Your task to perform on an android device: Show the shopping cart on ebay.com. Search for usb-a to usb-b on ebay.com, select the first entry, and add it to the cart. Image 0: 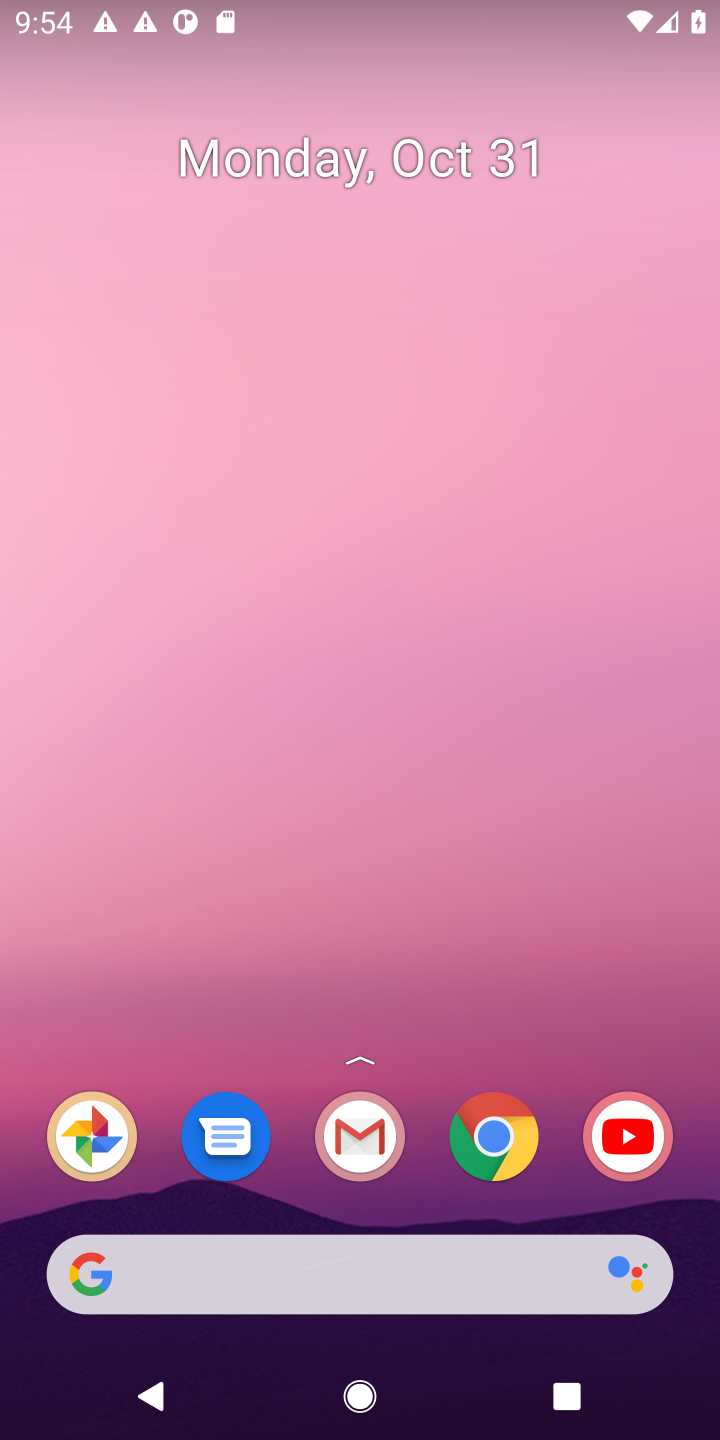
Step 0: press home button
Your task to perform on an android device: Show the shopping cart on ebay.com. Search for usb-a to usb-b on ebay.com, select the first entry, and add it to the cart. Image 1: 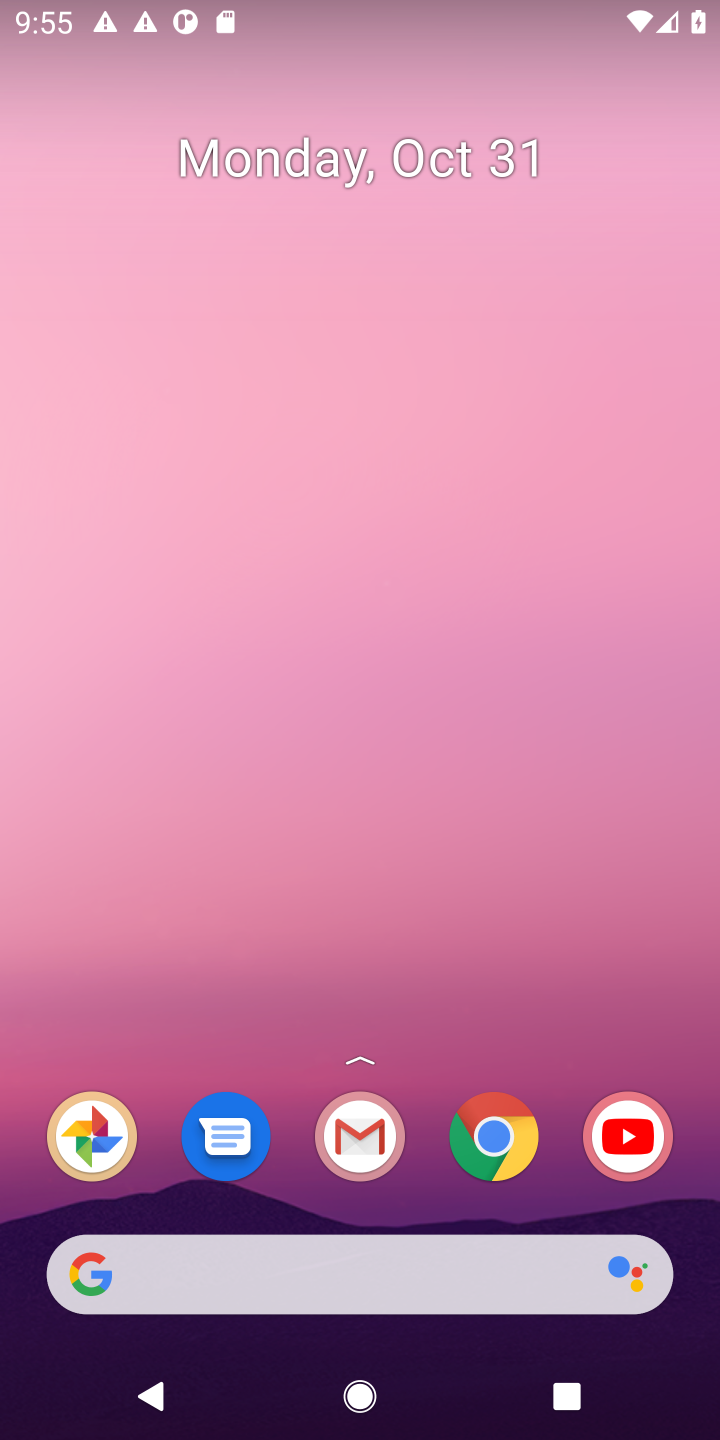
Step 1: click (142, 1270)
Your task to perform on an android device: Show the shopping cart on ebay.com. Search for usb-a to usb-b on ebay.com, select the first entry, and add it to the cart. Image 2: 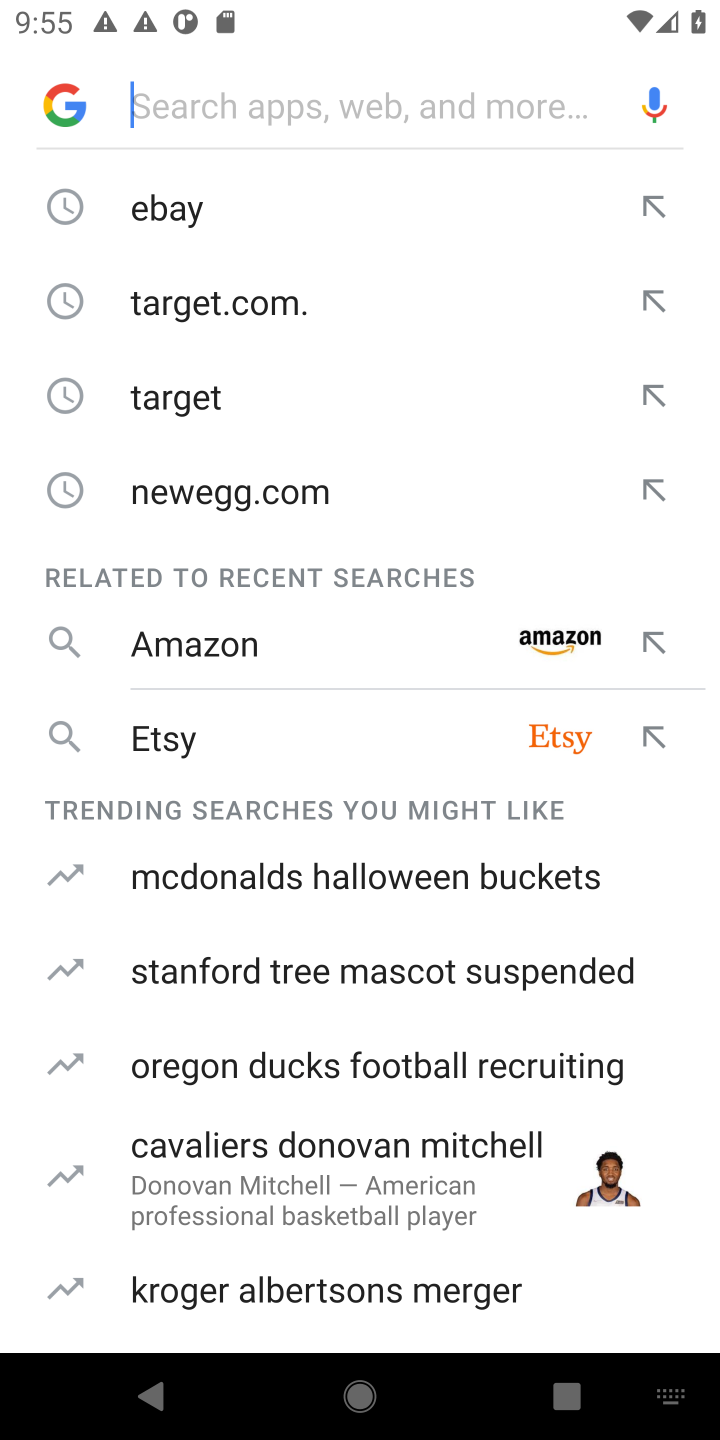
Step 2: press enter
Your task to perform on an android device: Show the shopping cart on ebay.com. Search for usb-a to usb-b on ebay.com, select the first entry, and add it to the cart. Image 3: 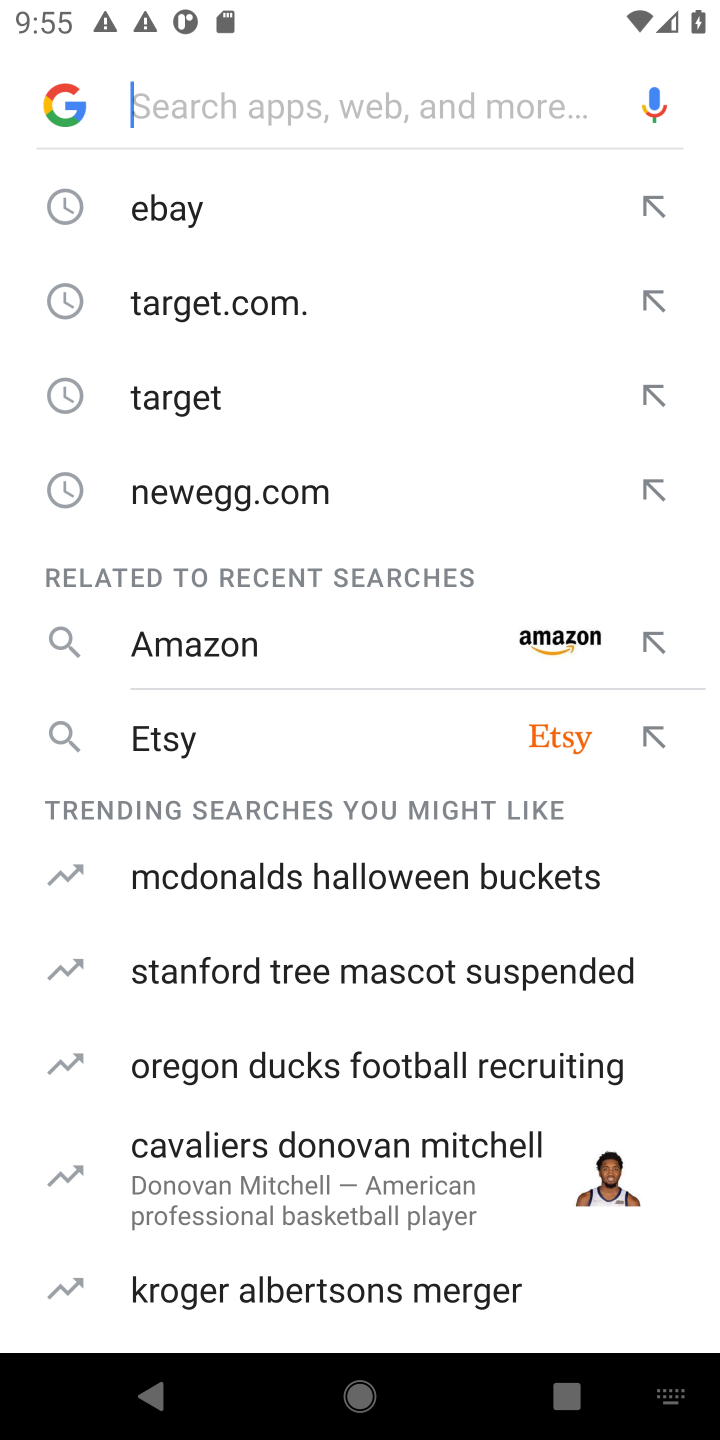
Step 3: type "ebay.com"
Your task to perform on an android device: Show the shopping cart on ebay.com. Search for usb-a to usb-b on ebay.com, select the first entry, and add it to the cart. Image 4: 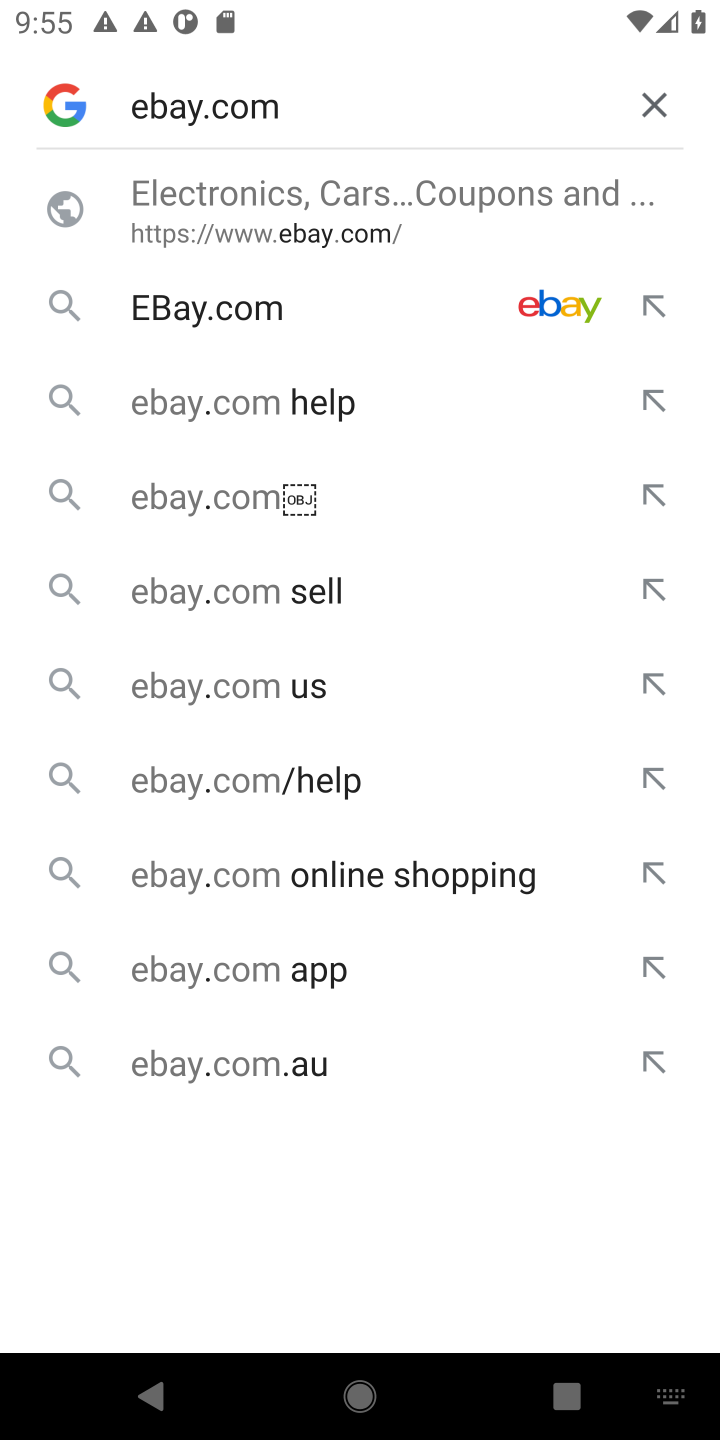
Step 4: press enter
Your task to perform on an android device: Show the shopping cart on ebay.com. Search for usb-a to usb-b on ebay.com, select the first entry, and add it to the cart. Image 5: 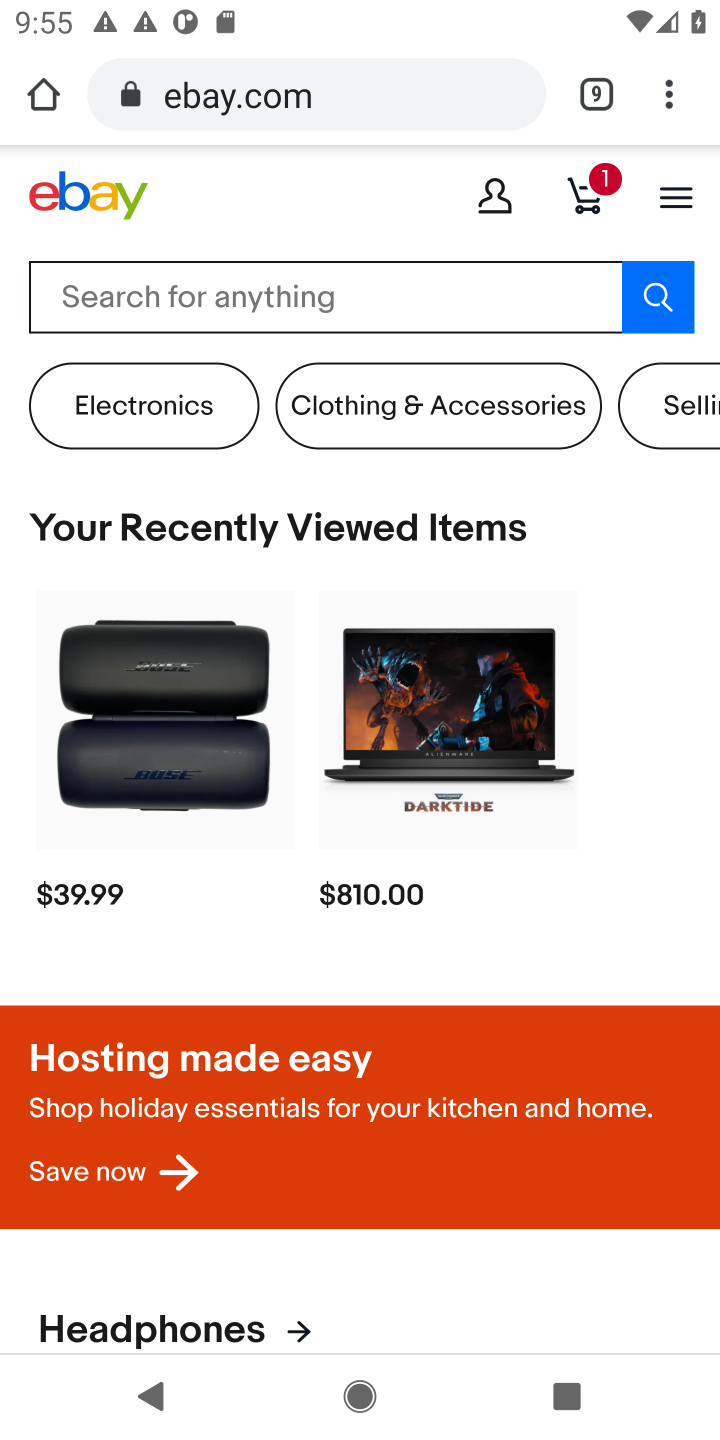
Step 5: click (596, 180)
Your task to perform on an android device: Show the shopping cart on ebay.com. Search for usb-a to usb-b on ebay.com, select the first entry, and add it to the cart. Image 6: 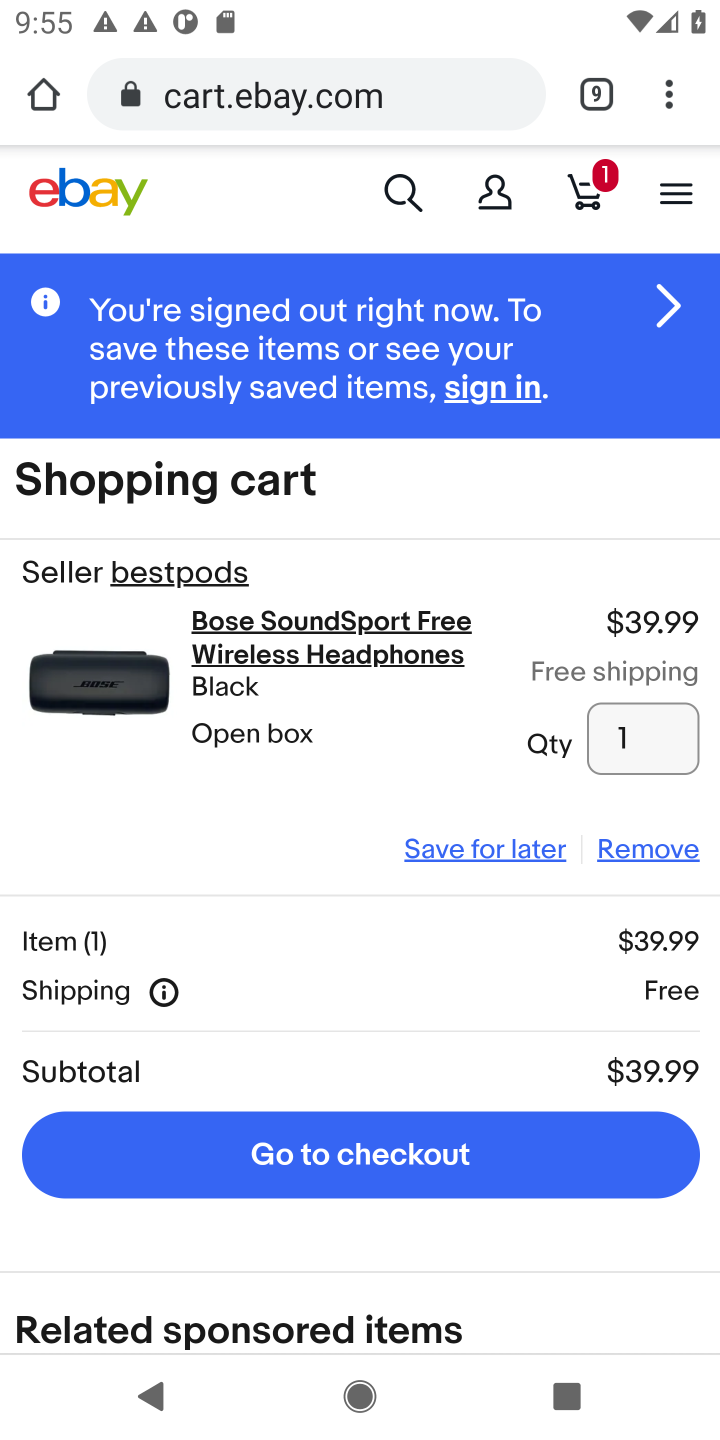
Step 6: click (409, 201)
Your task to perform on an android device: Show the shopping cart on ebay.com. Search for usb-a to usb-b on ebay.com, select the first entry, and add it to the cart. Image 7: 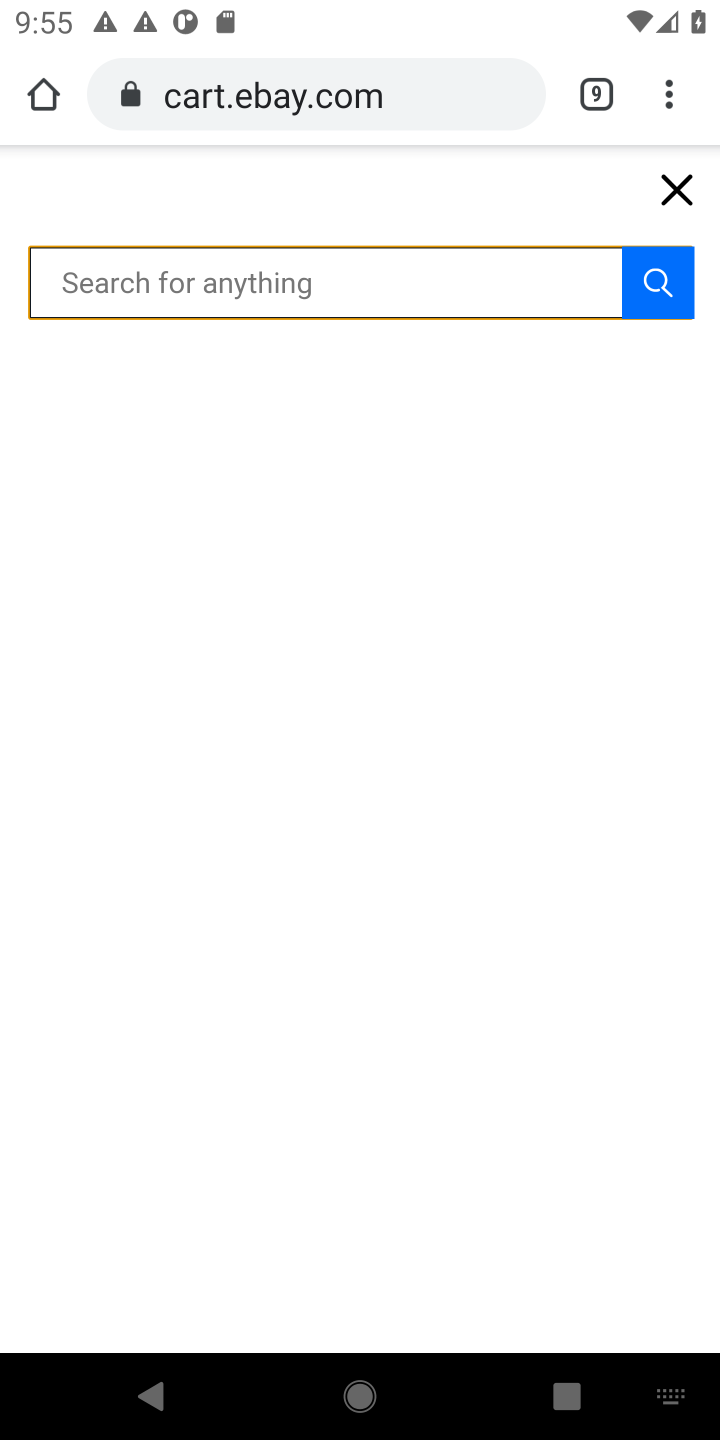
Step 7: click (194, 298)
Your task to perform on an android device: Show the shopping cart on ebay.com. Search for usb-a to usb-b on ebay.com, select the first entry, and add it to the cart. Image 8: 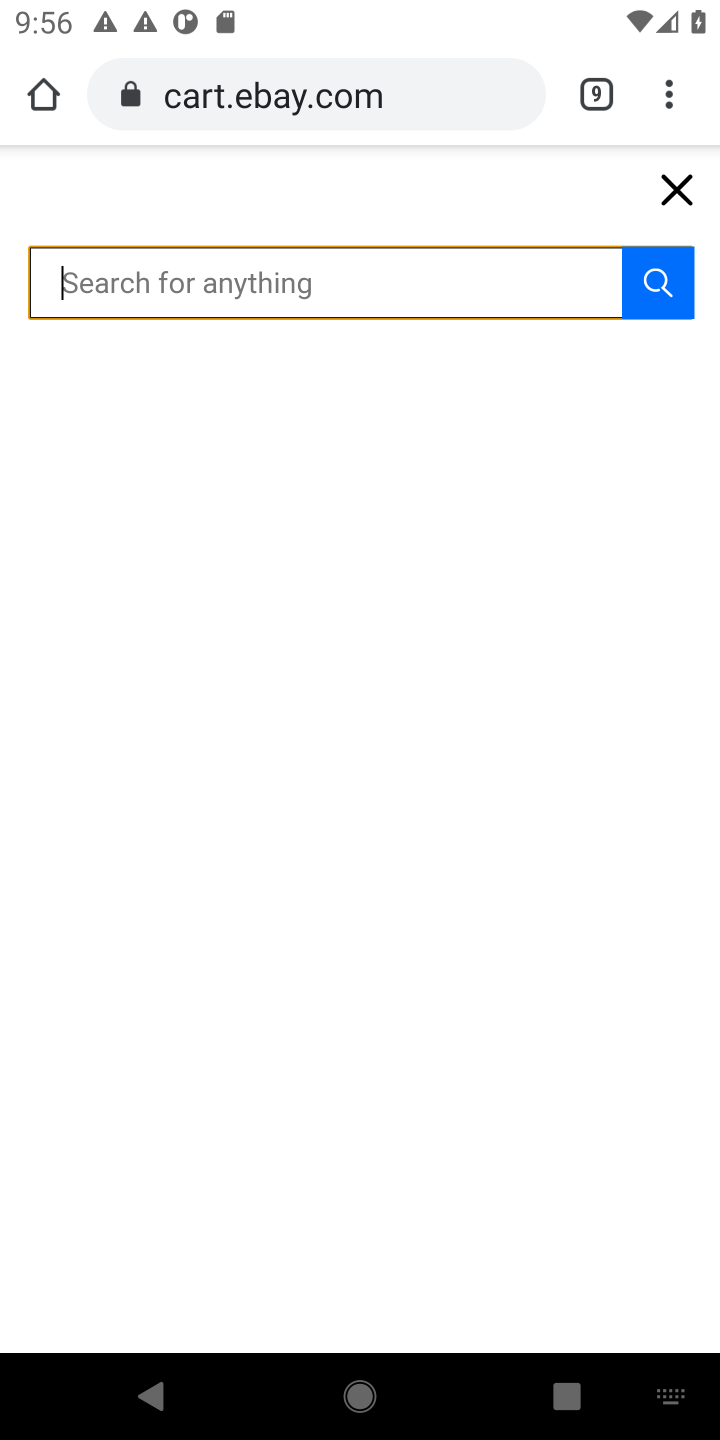
Step 8: type "usb-a to usb-b"
Your task to perform on an android device: Show the shopping cart on ebay.com. Search for usb-a to usb-b on ebay.com, select the first entry, and add it to the cart. Image 9: 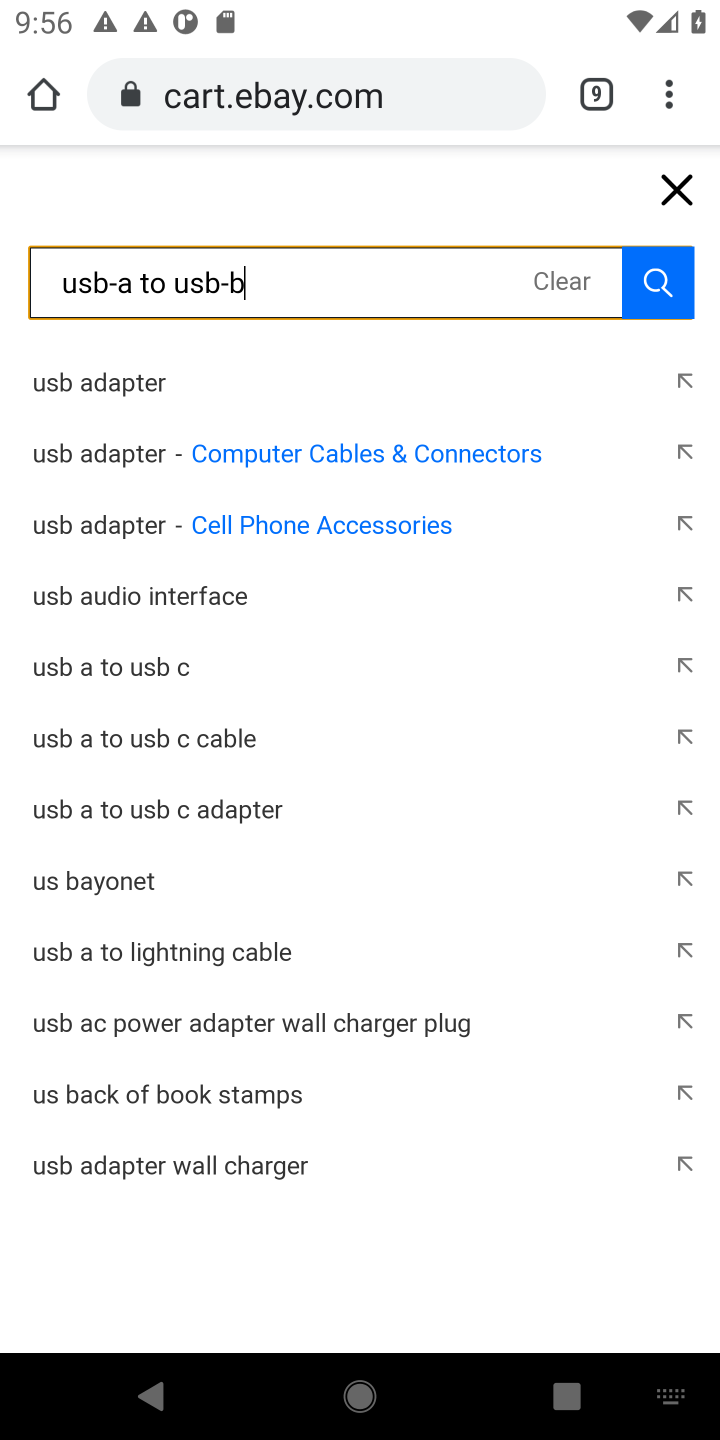
Step 9: press enter
Your task to perform on an android device: Show the shopping cart on ebay.com. Search for usb-a to usb-b on ebay.com, select the first entry, and add it to the cart. Image 10: 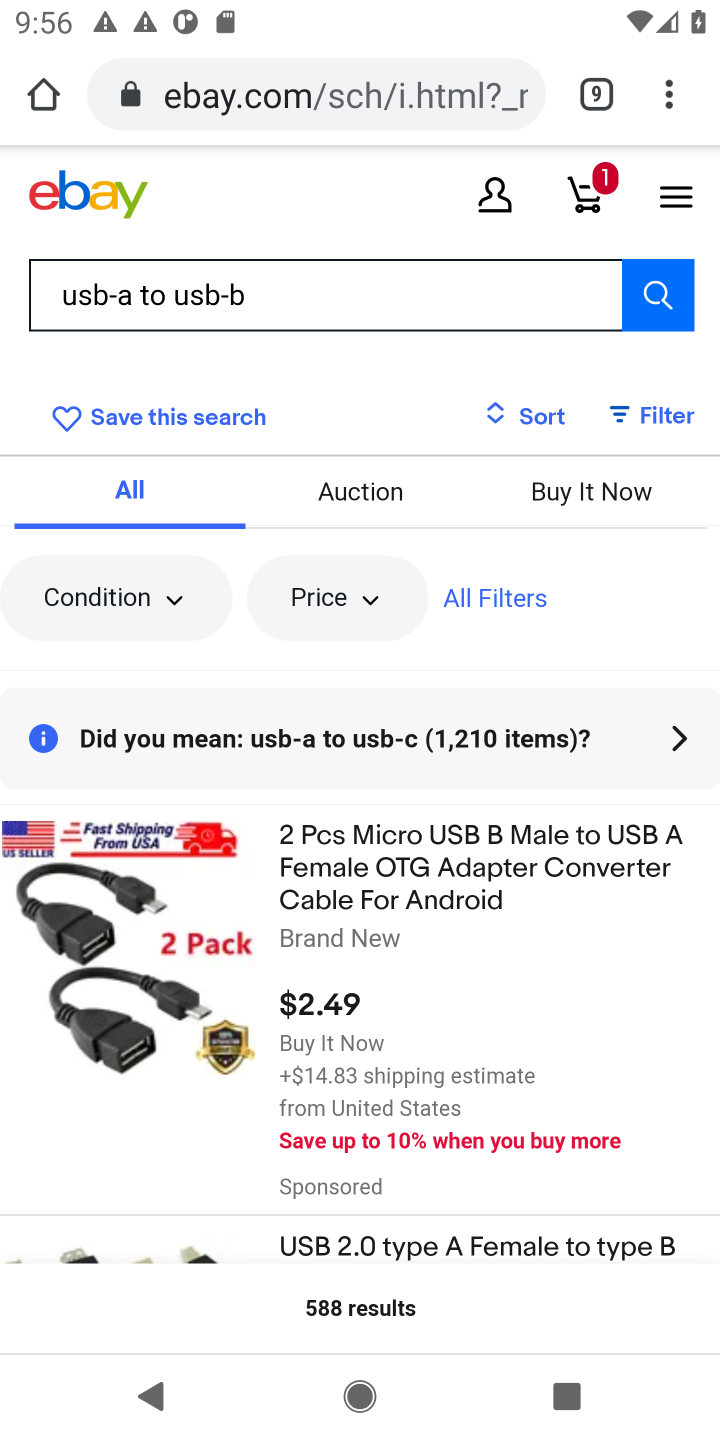
Step 10: click (432, 859)
Your task to perform on an android device: Show the shopping cart on ebay.com. Search for usb-a to usb-b on ebay.com, select the first entry, and add it to the cart. Image 11: 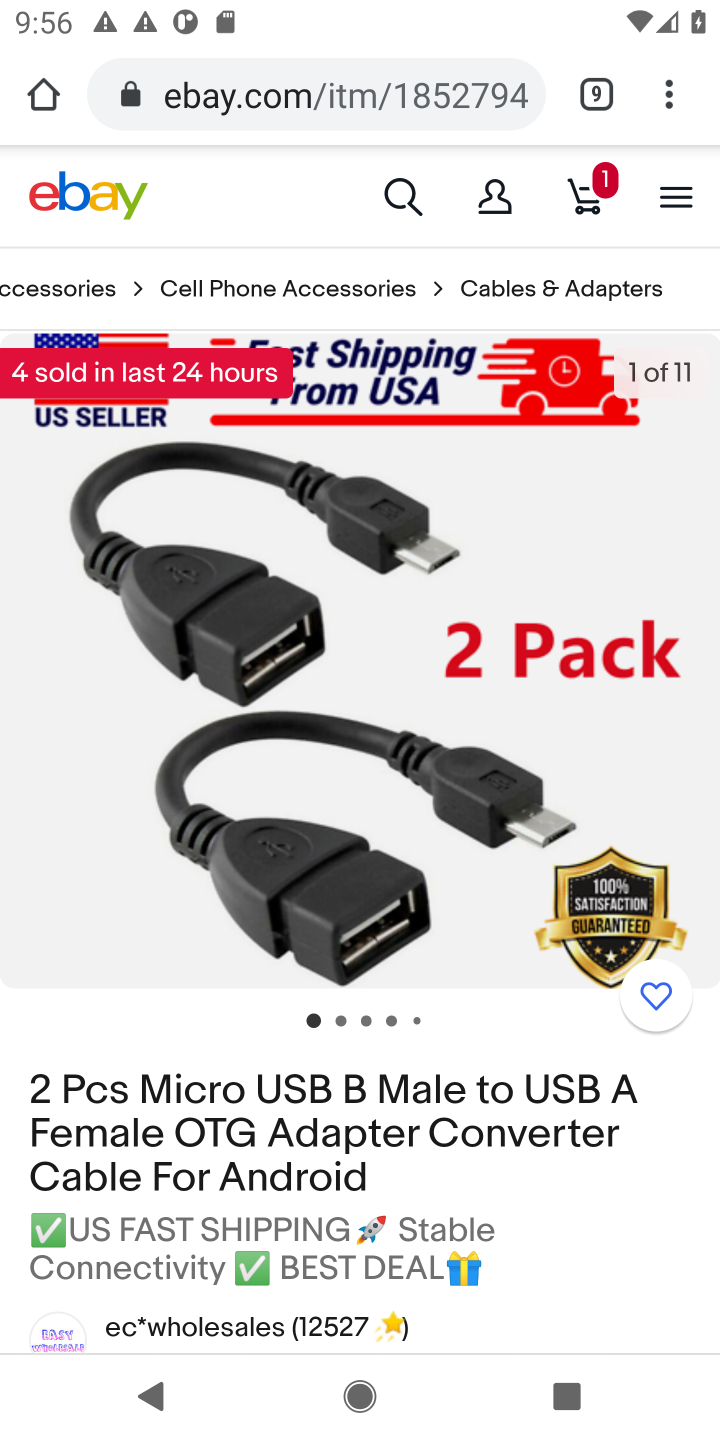
Step 11: drag from (382, 1031) to (381, 591)
Your task to perform on an android device: Show the shopping cart on ebay.com. Search for usb-a to usb-b on ebay.com, select the first entry, and add it to the cart. Image 12: 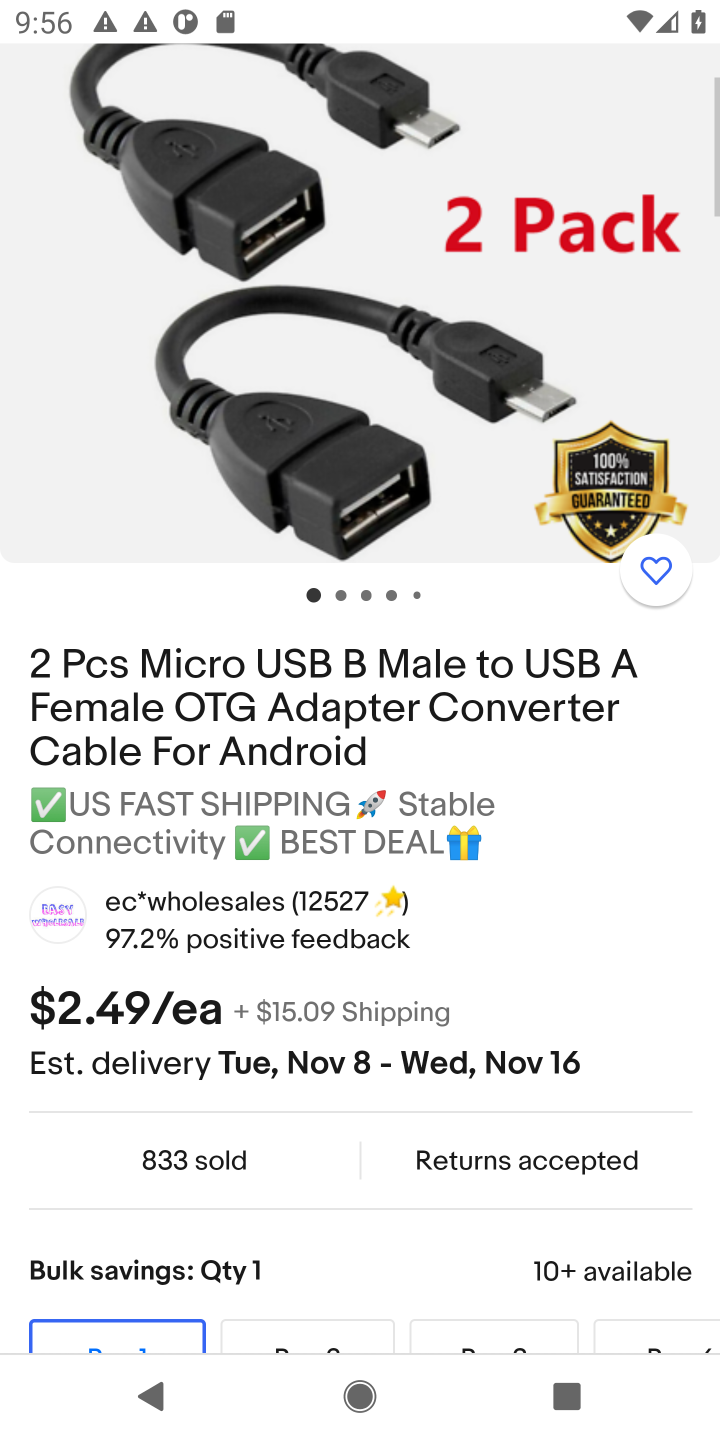
Step 12: drag from (372, 1000) to (385, 547)
Your task to perform on an android device: Show the shopping cart on ebay.com. Search for usb-a to usb-b on ebay.com, select the first entry, and add it to the cart. Image 13: 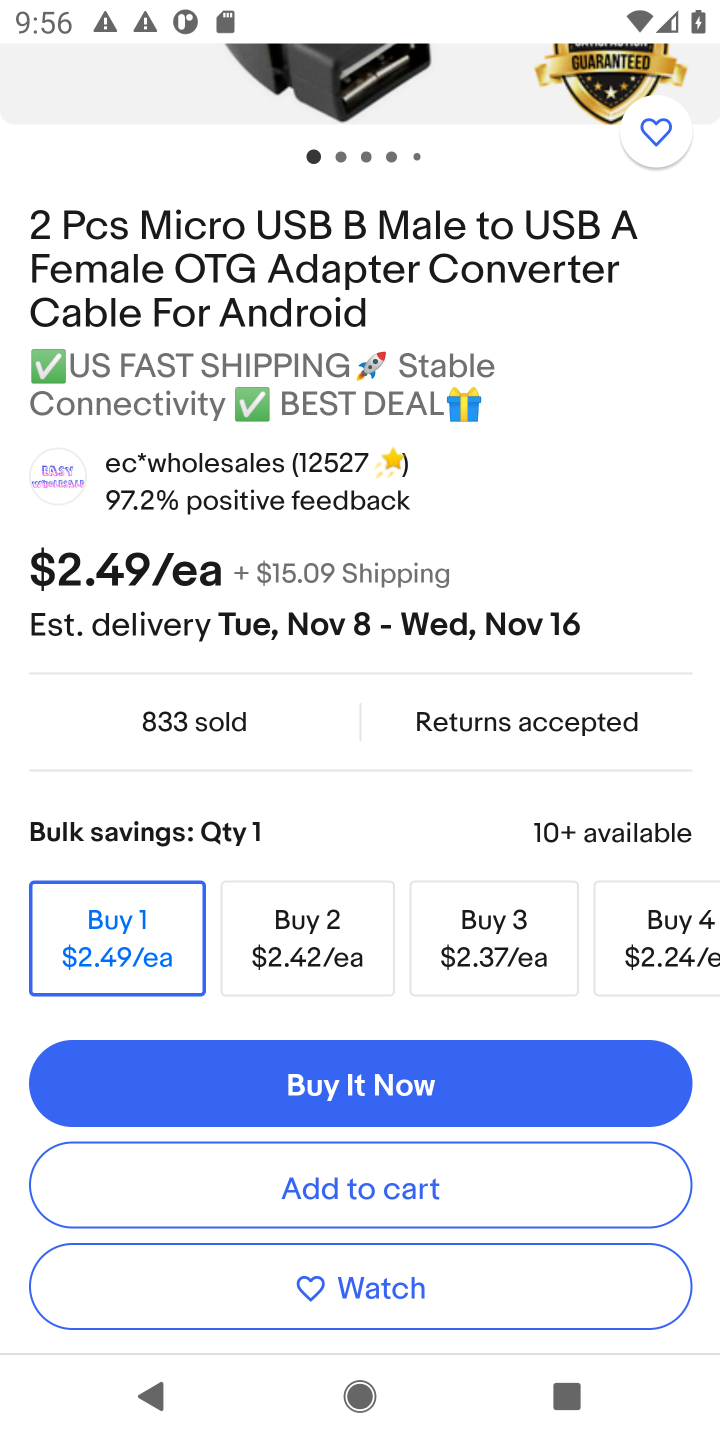
Step 13: drag from (394, 1056) to (400, 464)
Your task to perform on an android device: Show the shopping cart on ebay.com. Search for usb-a to usb-b on ebay.com, select the first entry, and add it to the cart. Image 14: 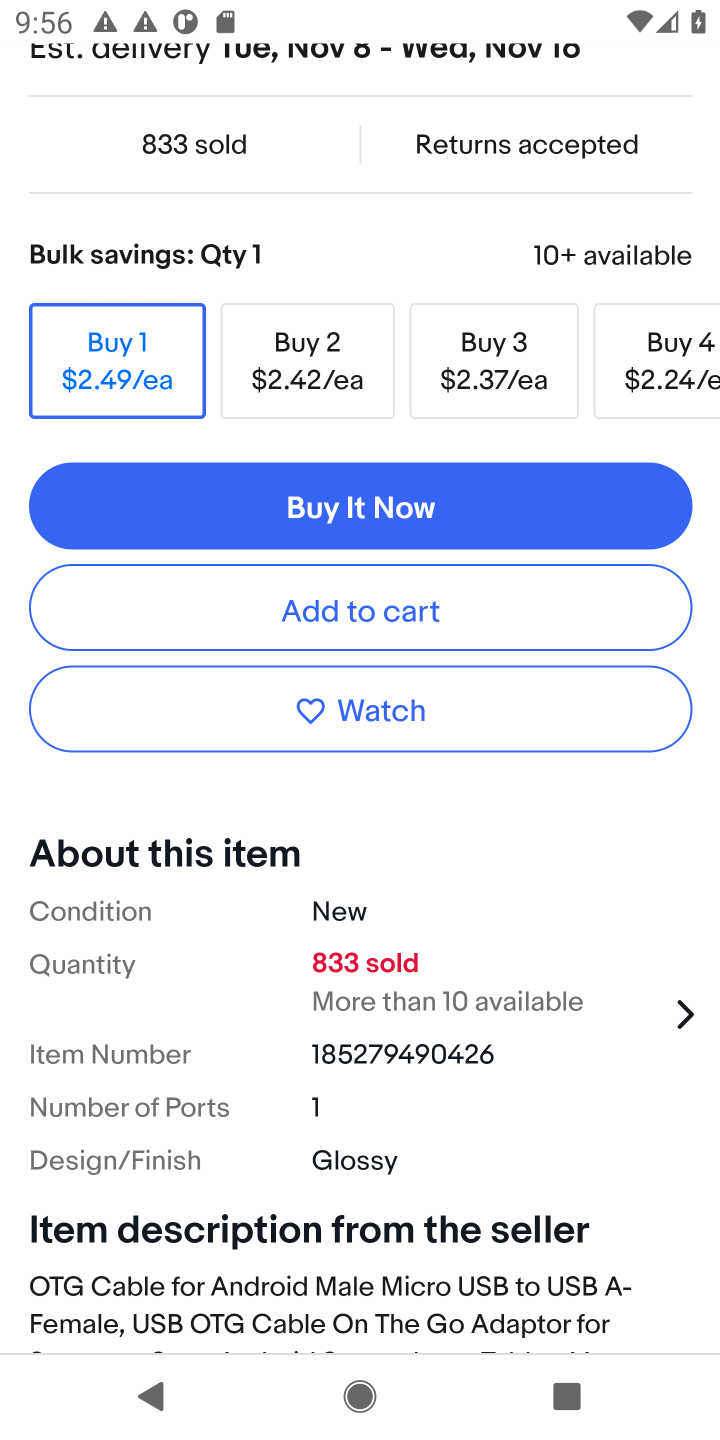
Step 14: click (356, 600)
Your task to perform on an android device: Show the shopping cart on ebay.com. Search for usb-a to usb-b on ebay.com, select the first entry, and add it to the cart. Image 15: 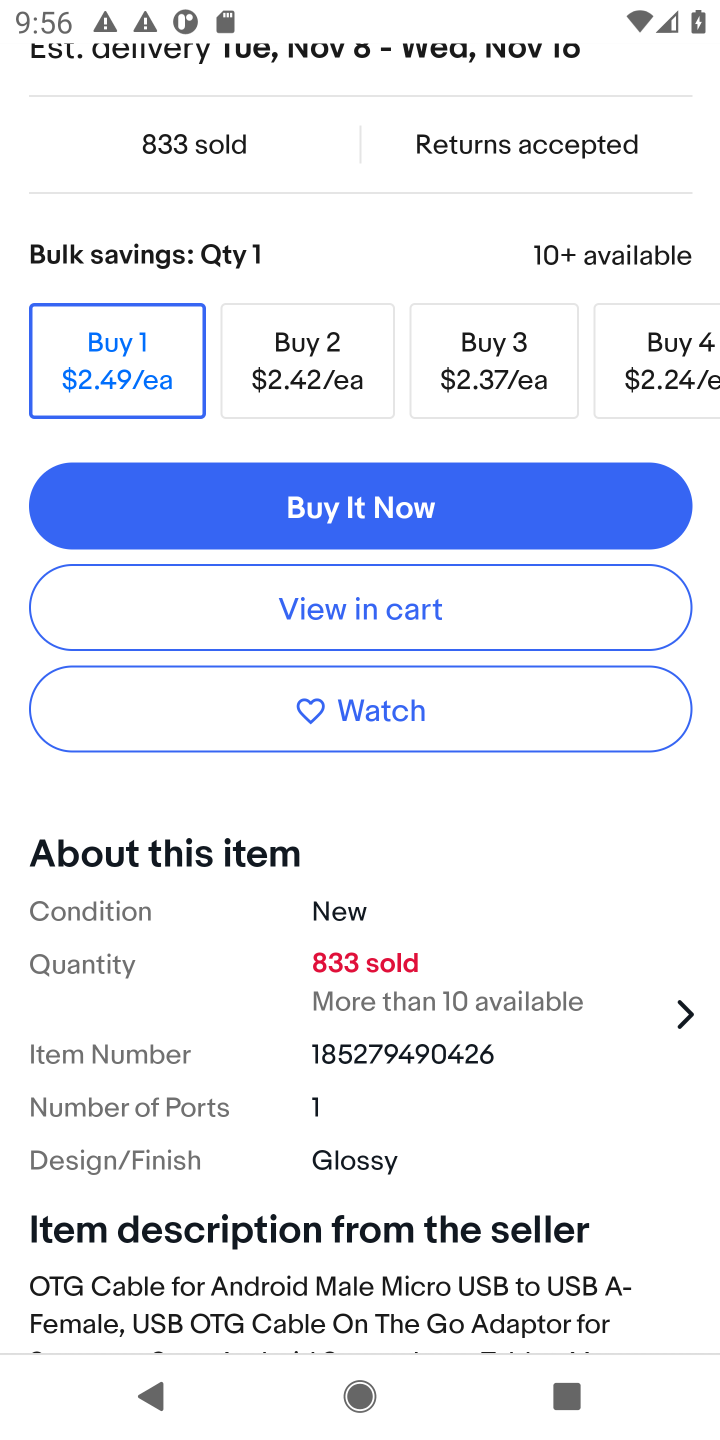
Step 15: task complete